Your task to perform on an android device: Open my contact list Image 0: 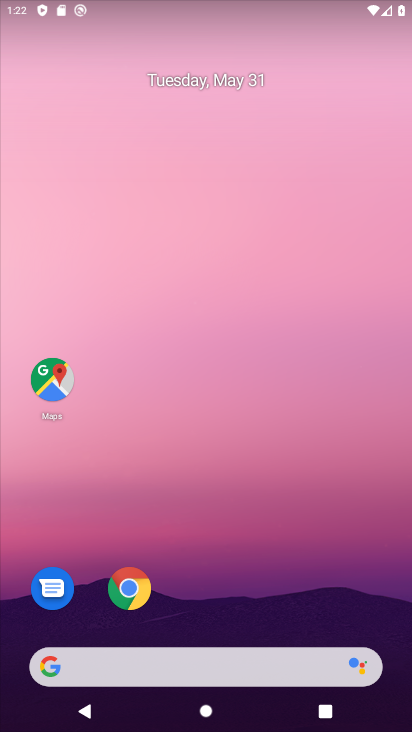
Step 0: drag from (375, 625) to (385, 123)
Your task to perform on an android device: Open my contact list Image 1: 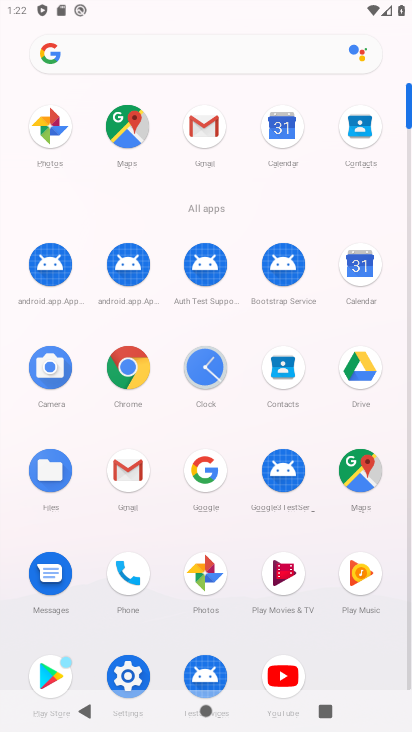
Step 1: click (282, 373)
Your task to perform on an android device: Open my contact list Image 2: 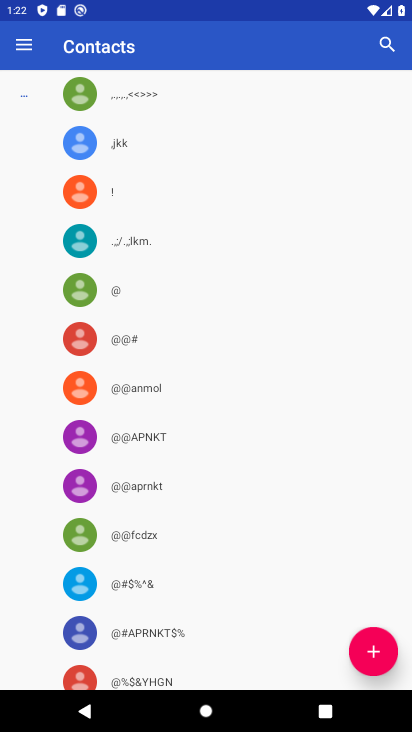
Step 2: task complete